Your task to perform on an android device: Show me popular videos on Youtube Image 0: 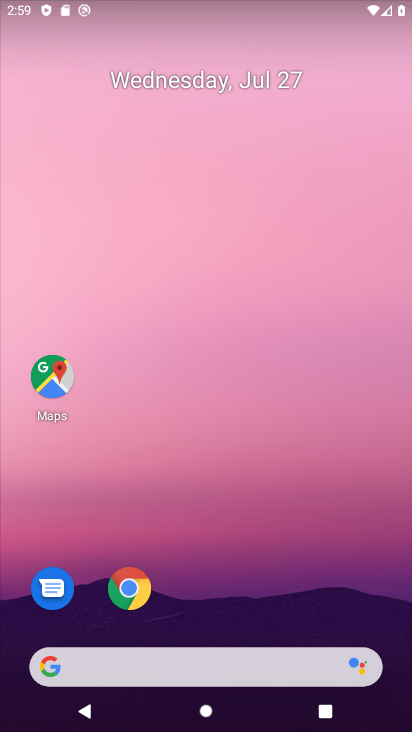
Step 0: drag from (253, 617) to (233, 9)
Your task to perform on an android device: Show me popular videos on Youtube Image 1: 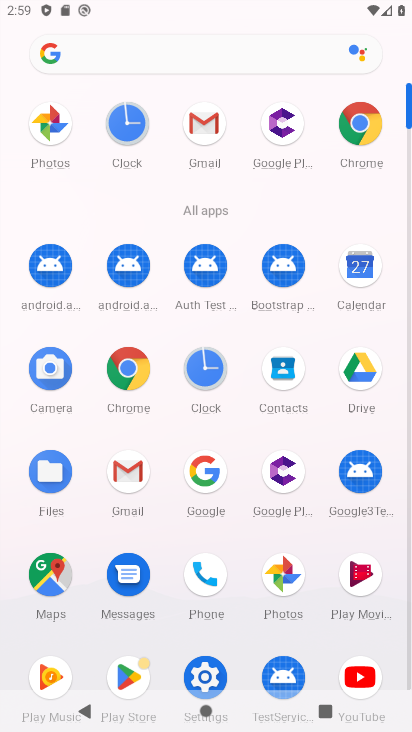
Step 1: click (367, 676)
Your task to perform on an android device: Show me popular videos on Youtube Image 2: 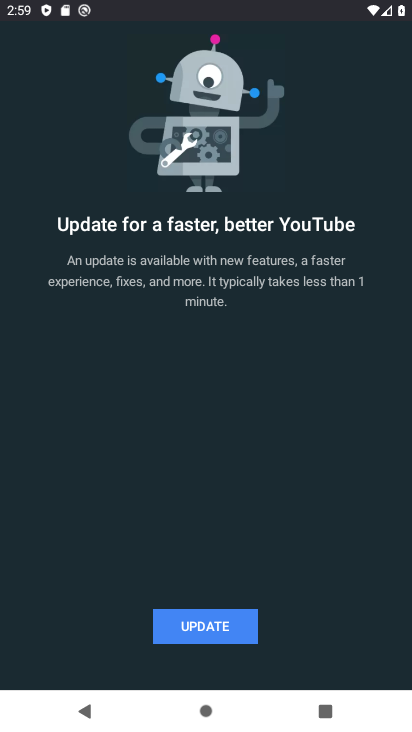
Step 2: click (224, 625)
Your task to perform on an android device: Show me popular videos on Youtube Image 3: 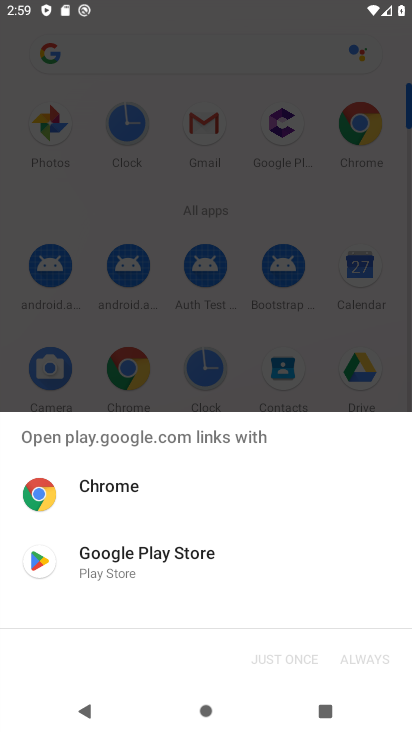
Step 3: click (209, 585)
Your task to perform on an android device: Show me popular videos on Youtube Image 4: 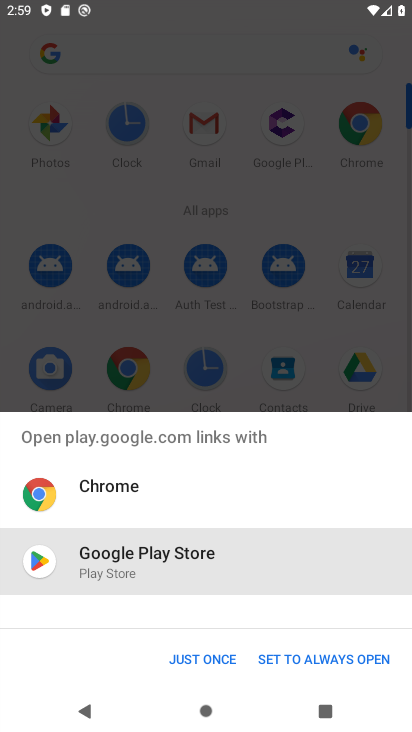
Step 4: click (214, 661)
Your task to perform on an android device: Show me popular videos on Youtube Image 5: 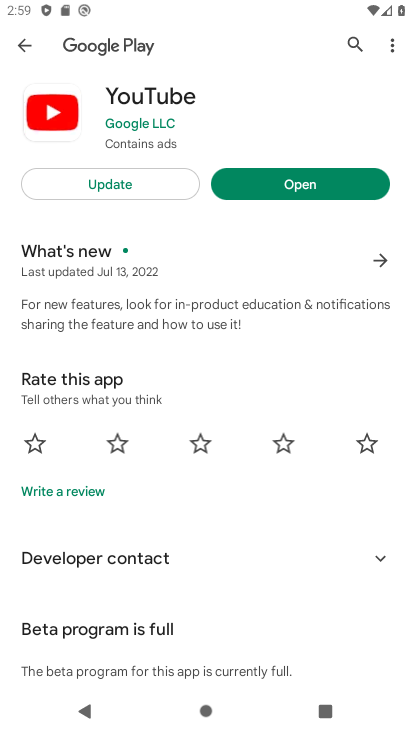
Step 5: click (175, 179)
Your task to perform on an android device: Show me popular videos on Youtube Image 6: 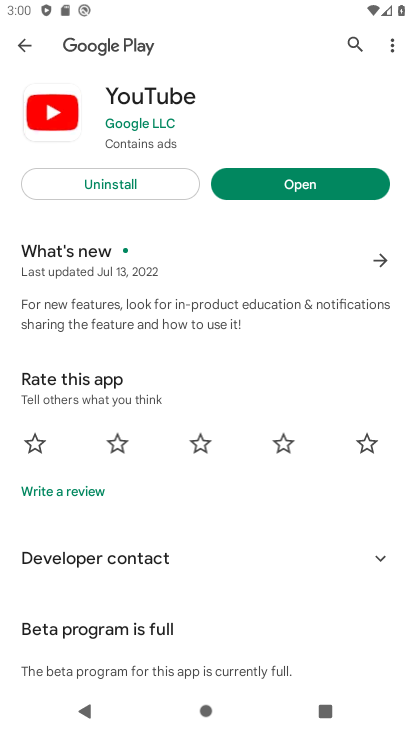
Step 6: click (355, 188)
Your task to perform on an android device: Show me popular videos on Youtube Image 7: 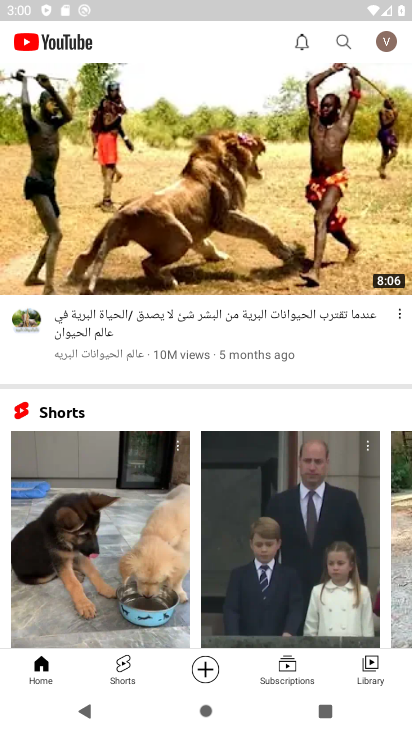
Step 7: drag from (241, 602) to (248, 253)
Your task to perform on an android device: Show me popular videos on Youtube Image 8: 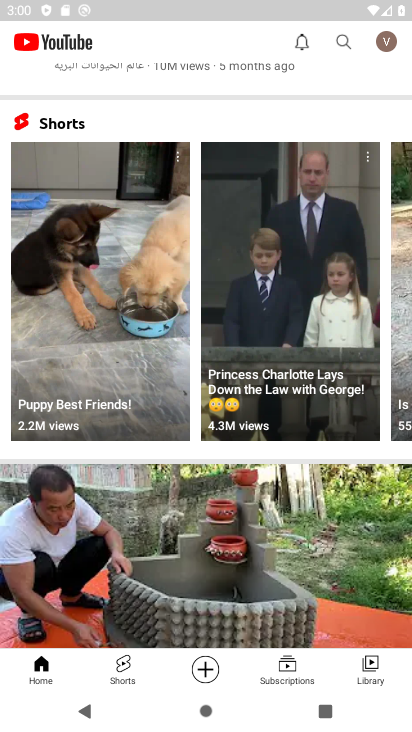
Step 8: click (386, 668)
Your task to perform on an android device: Show me popular videos on Youtube Image 9: 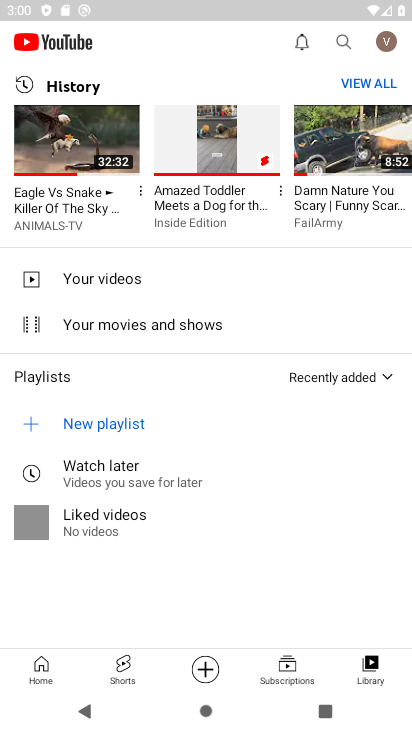
Step 9: task complete